Your task to perform on an android device: see sites visited before in the chrome app Image 0: 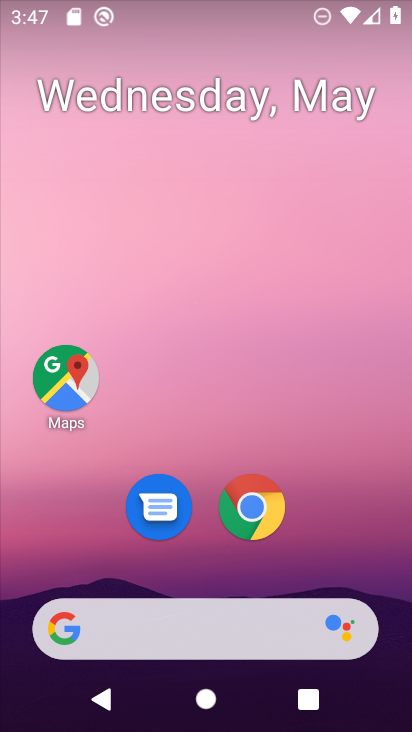
Step 0: click (256, 513)
Your task to perform on an android device: see sites visited before in the chrome app Image 1: 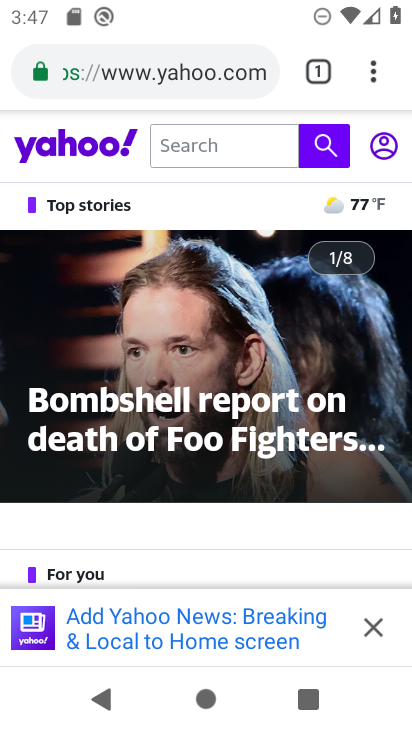
Step 1: task complete